Your task to perform on an android device: Open my contact list Image 0: 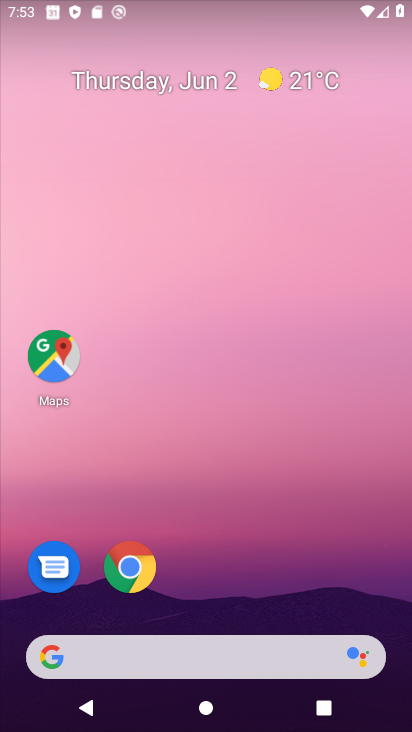
Step 0: drag from (379, 617) to (361, 98)
Your task to perform on an android device: Open my contact list Image 1: 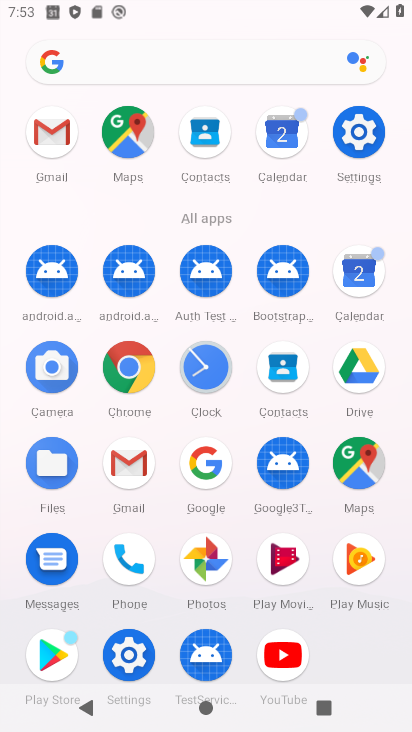
Step 1: click (281, 371)
Your task to perform on an android device: Open my contact list Image 2: 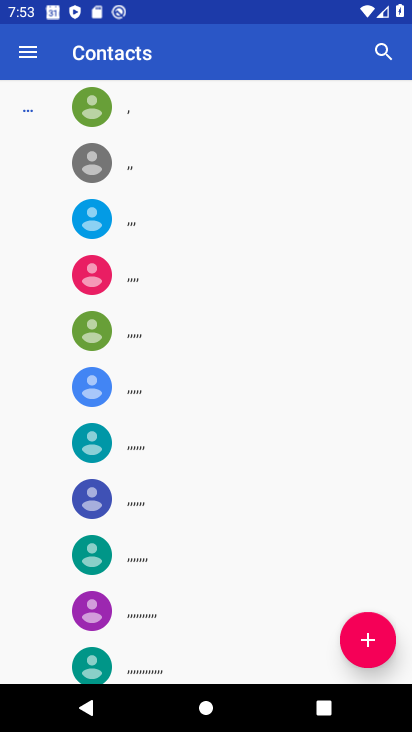
Step 2: task complete